Your task to perform on an android device: Go to notification settings Image 0: 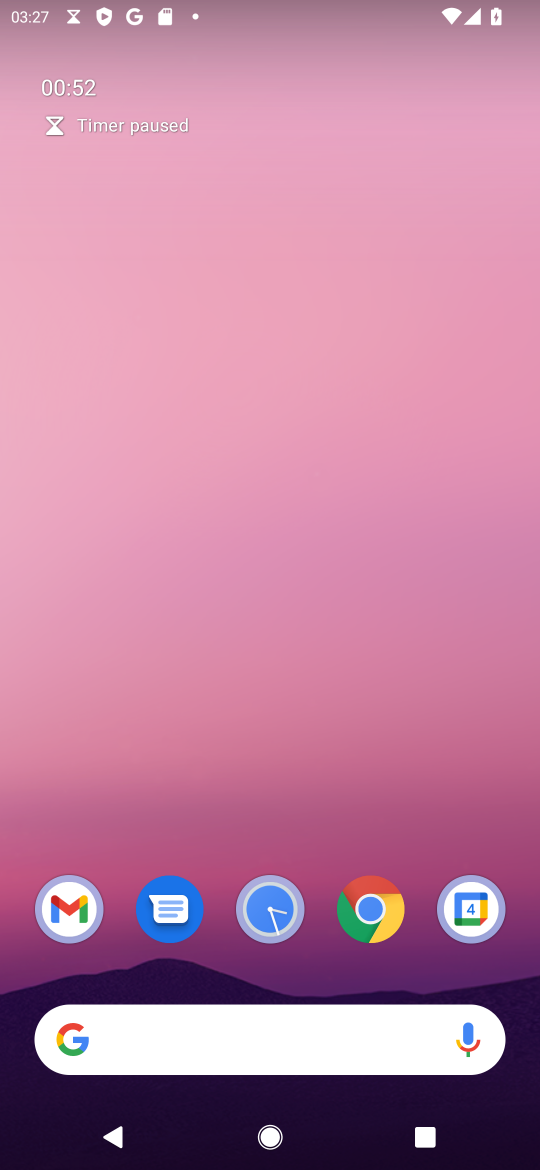
Step 0: drag from (197, 1043) to (466, 160)
Your task to perform on an android device: Go to notification settings Image 1: 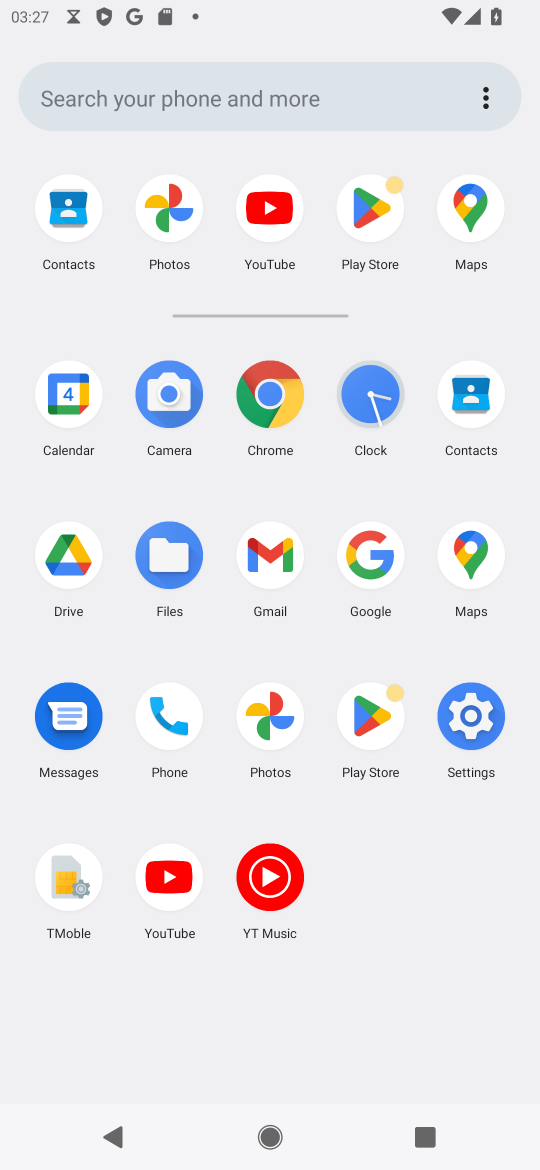
Step 1: click (487, 716)
Your task to perform on an android device: Go to notification settings Image 2: 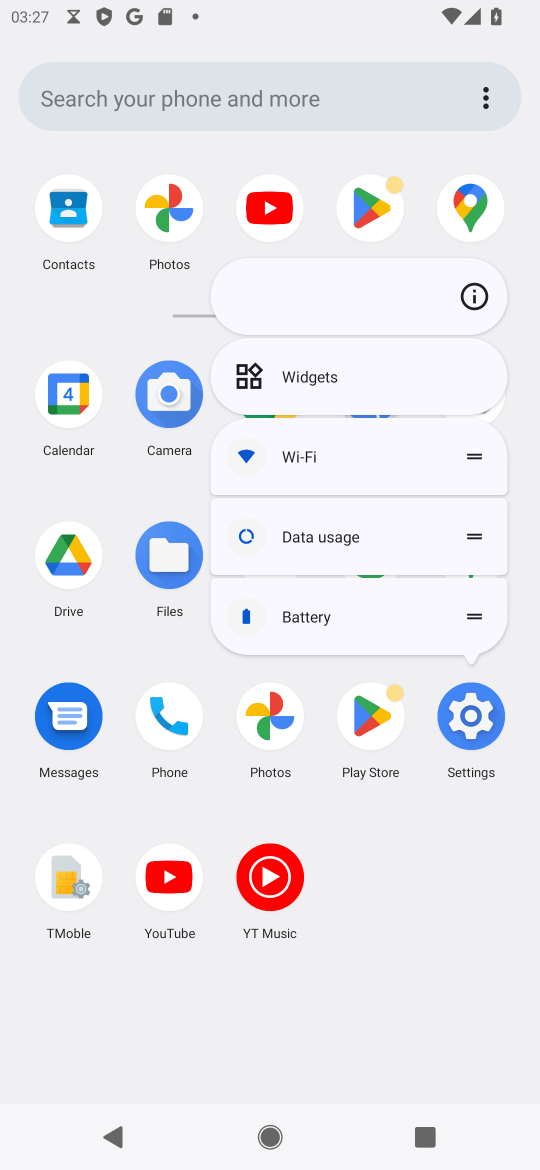
Step 2: click (467, 730)
Your task to perform on an android device: Go to notification settings Image 3: 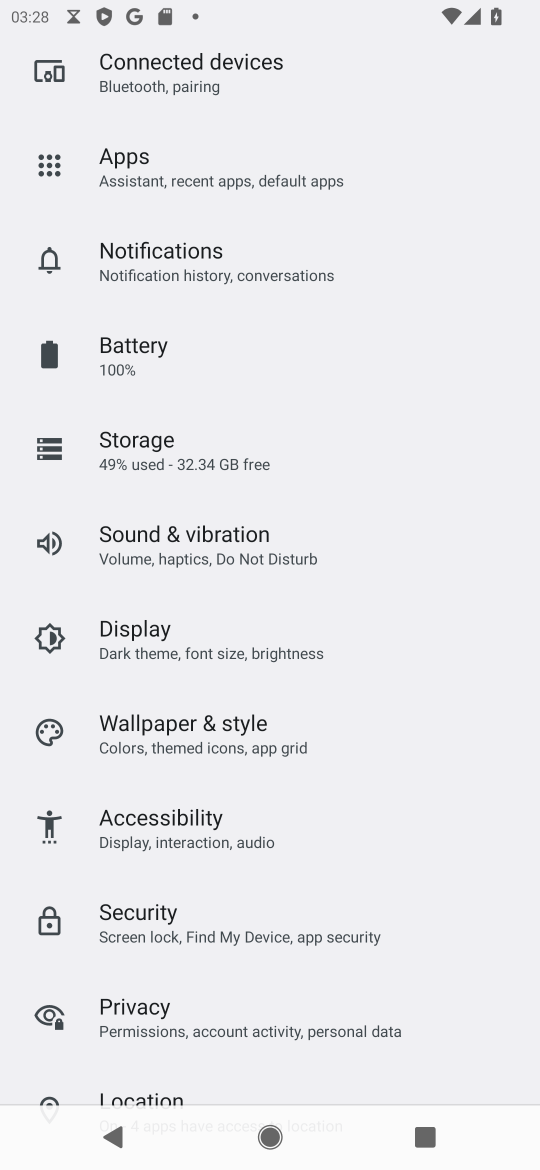
Step 3: click (158, 270)
Your task to perform on an android device: Go to notification settings Image 4: 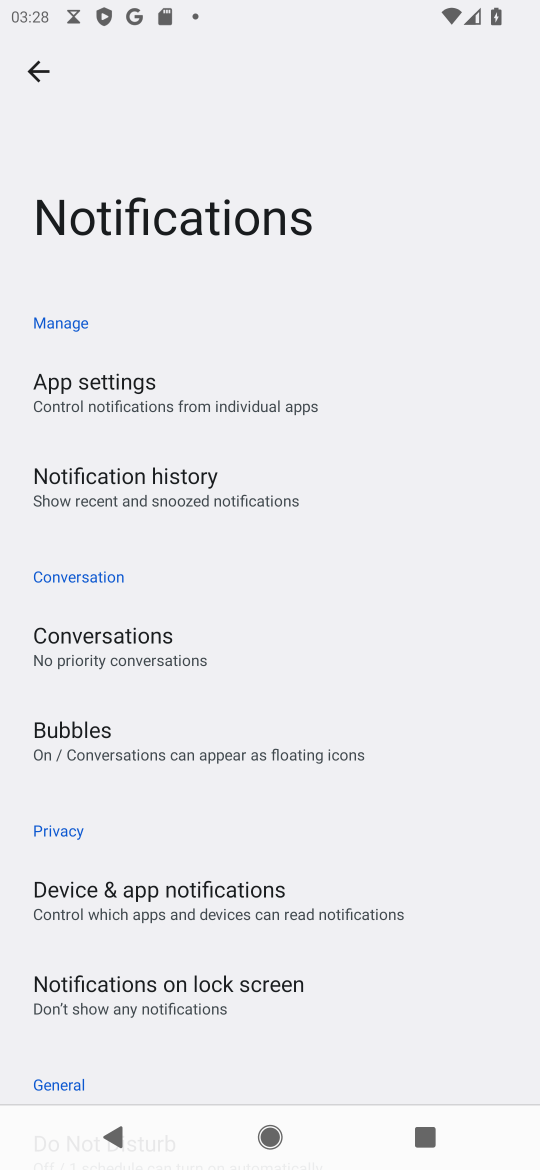
Step 4: task complete